Your task to perform on an android device: Go to CNN.com Image 0: 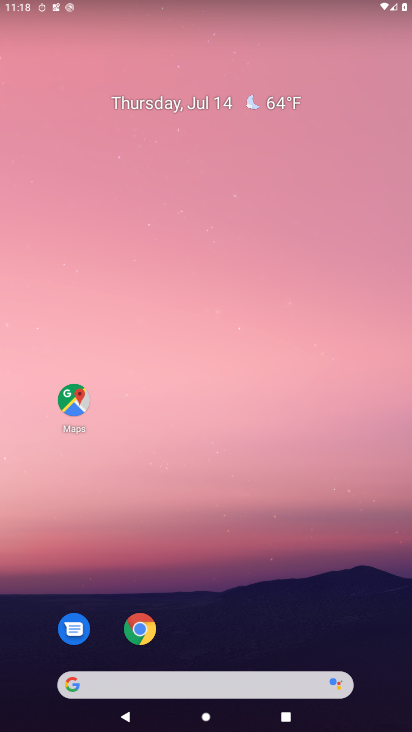
Step 0: drag from (172, 647) to (230, 345)
Your task to perform on an android device: Go to CNN.com Image 1: 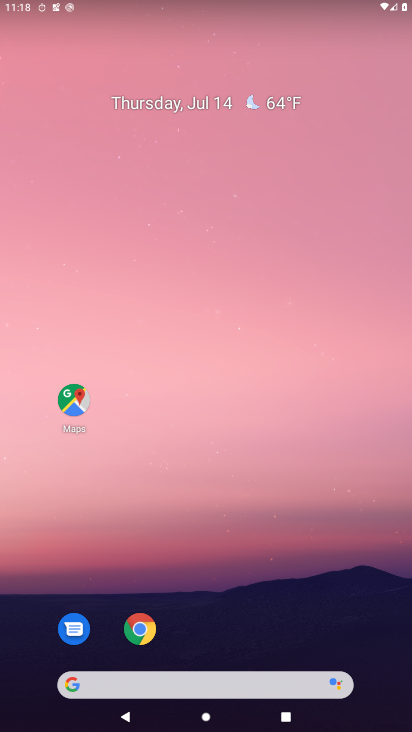
Step 1: drag from (203, 650) to (222, 170)
Your task to perform on an android device: Go to CNN.com Image 2: 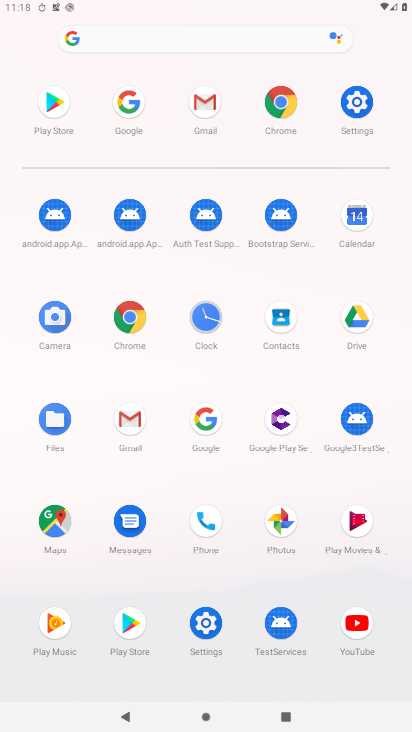
Step 2: click (193, 420)
Your task to perform on an android device: Go to CNN.com Image 3: 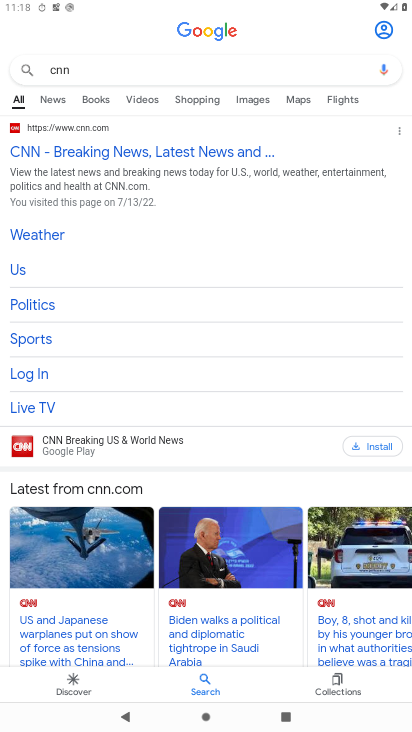
Step 3: drag from (156, 600) to (166, 254)
Your task to perform on an android device: Go to CNN.com Image 4: 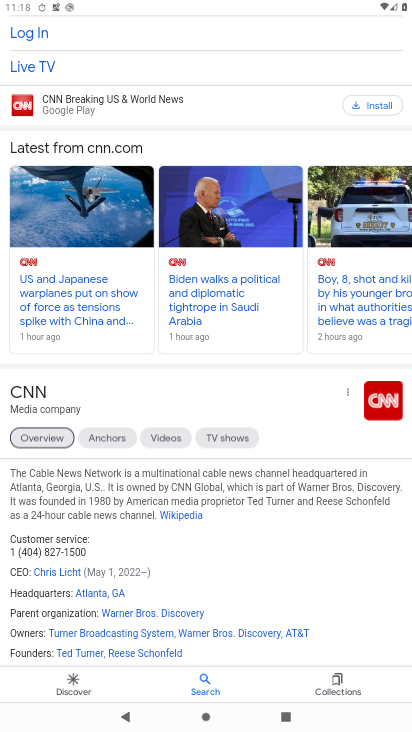
Step 4: drag from (183, 133) to (185, 557)
Your task to perform on an android device: Go to CNN.com Image 5: 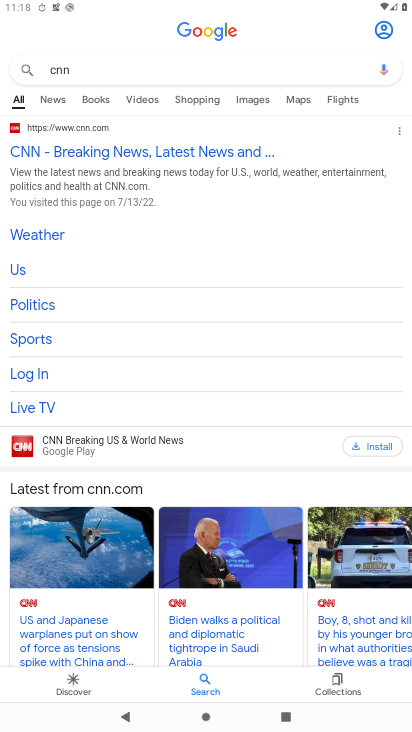
Step 5: click (131, 152)
Your task to perform on an android device: Go to CNN.com Image 6: 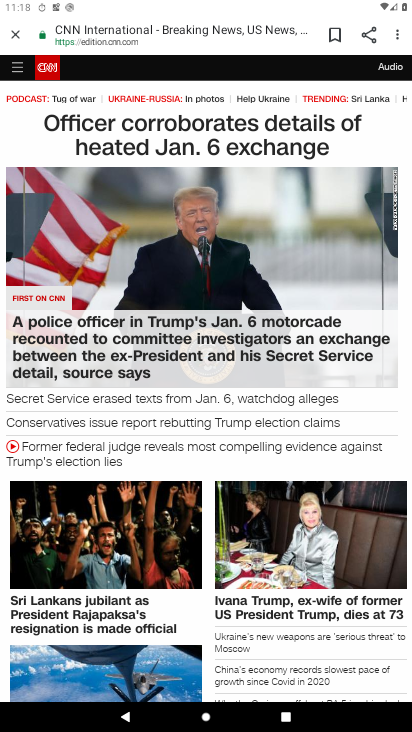
Step 6: task complete